Your task to perform on an android device: Search for macbook pro 15 inch on ebay, select the first entry, and add it to the cart. Image 0: 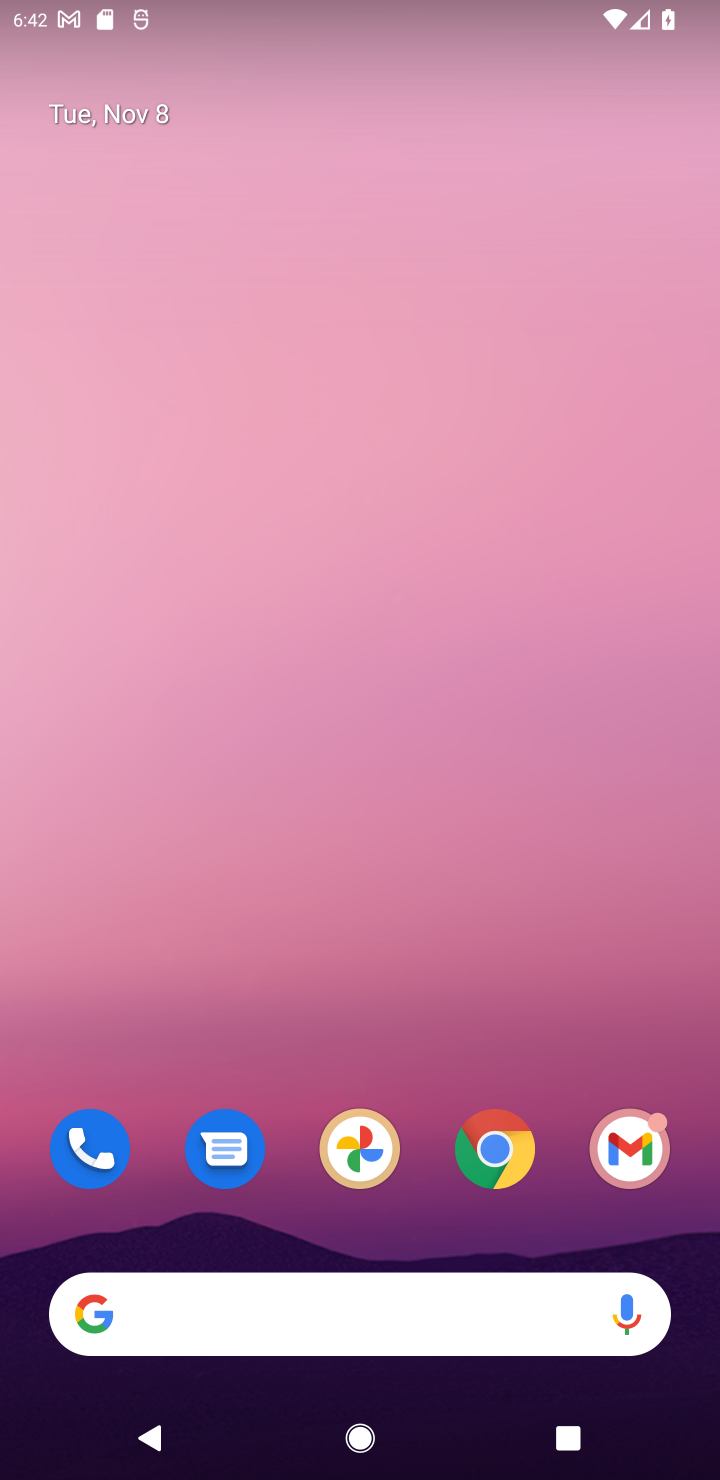
Step 0: click (485, 1144)
Your task to perform on an android device: Search for macbook pro 15 inch on ebay, select the first entry, and add it to the cart. Image 1: 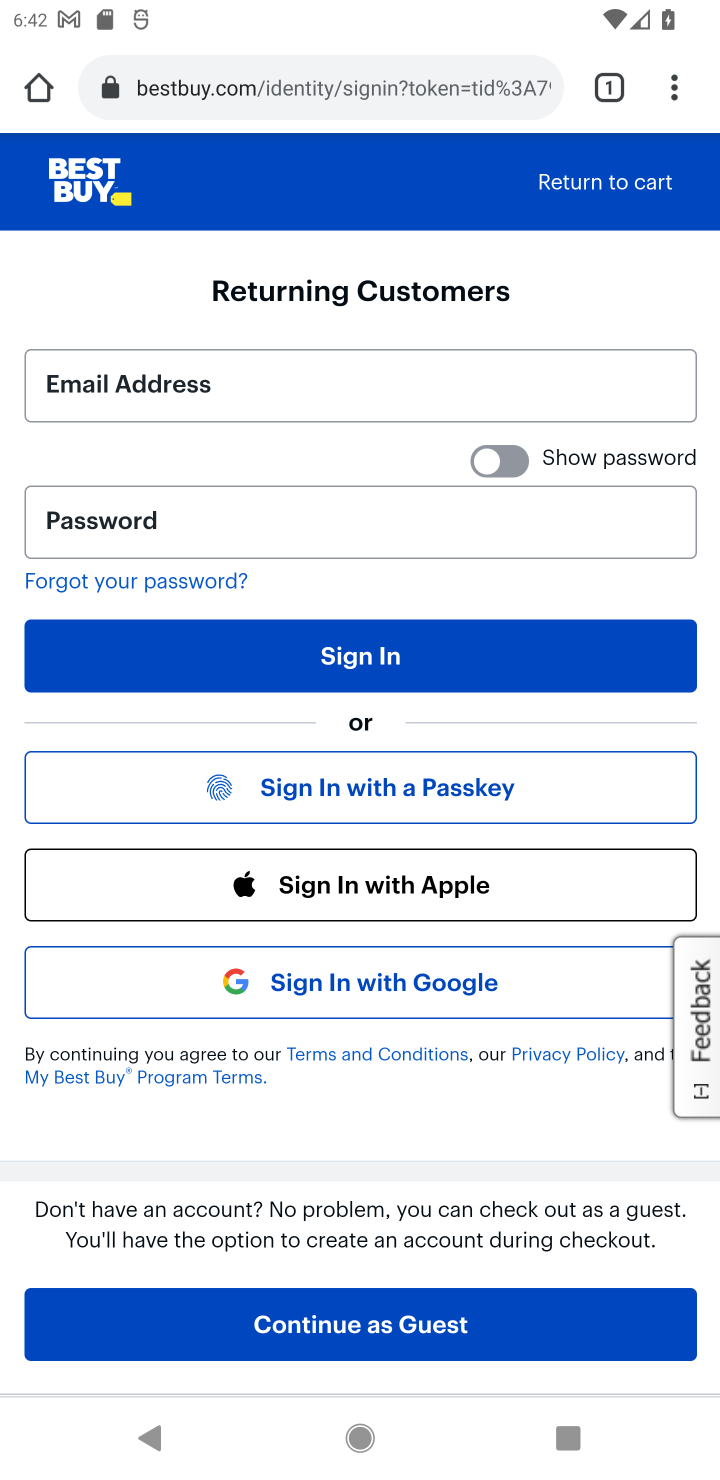
Step 1: click (408, 81)
Your task to perform on an android device: Search for macbook pro 15 inch on ebay, select the first entry, and add it to the cart. Image 2: 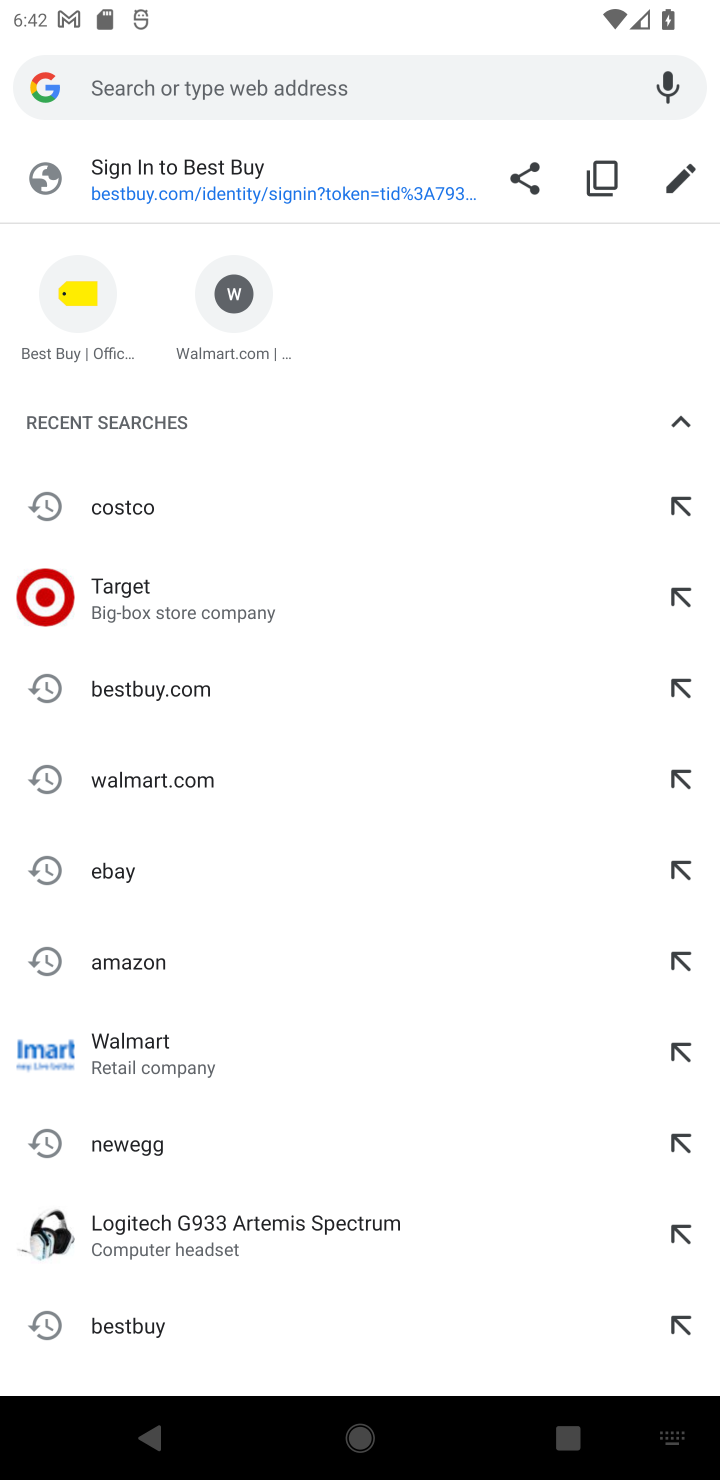
Step 2: type "ebay"
Your task to perform on an android device: Search for macbook pro 15 inch on ebay, select the first entry, and add it to the cart. Image 3: 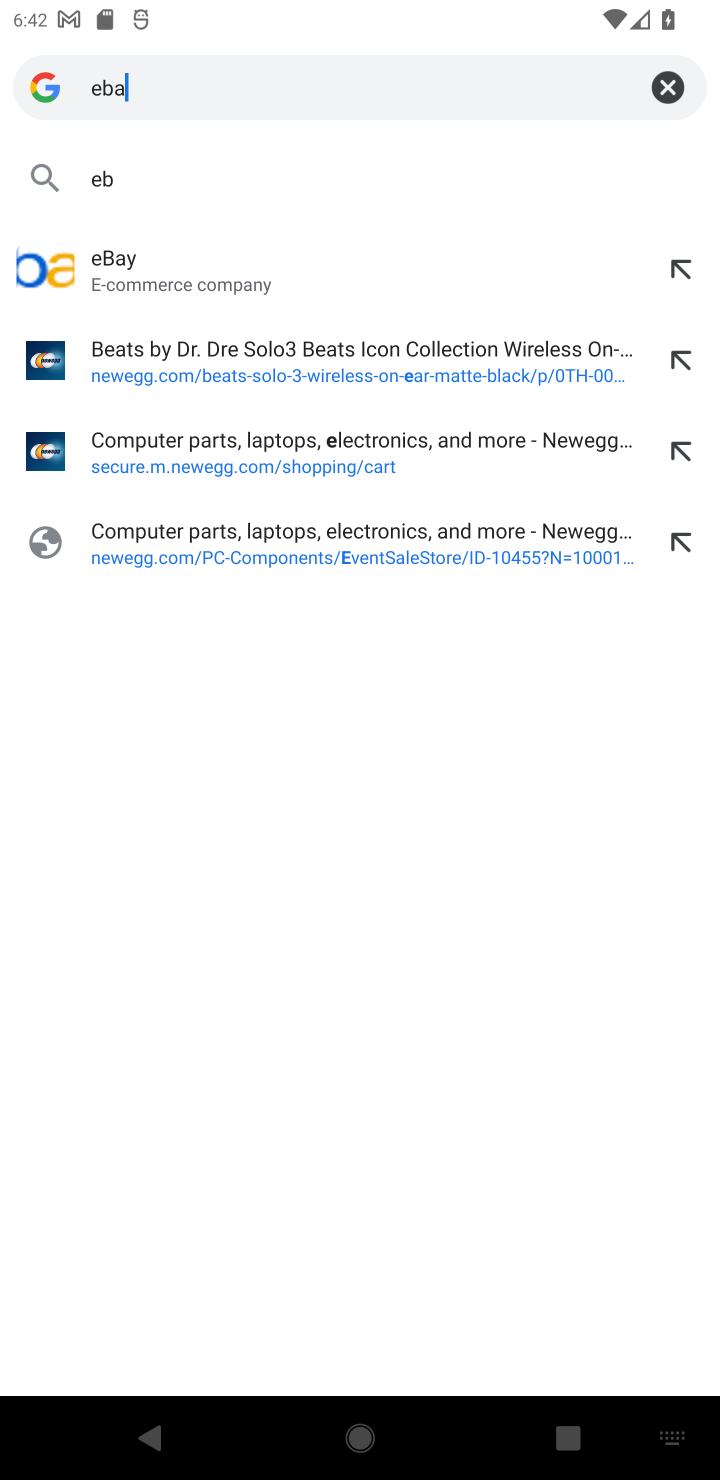
Step 3: press enter
Your task to perform on an android device: Search for macbook pro 15 inch on ebay, select the first entry, and add it to the cart. Image 4: 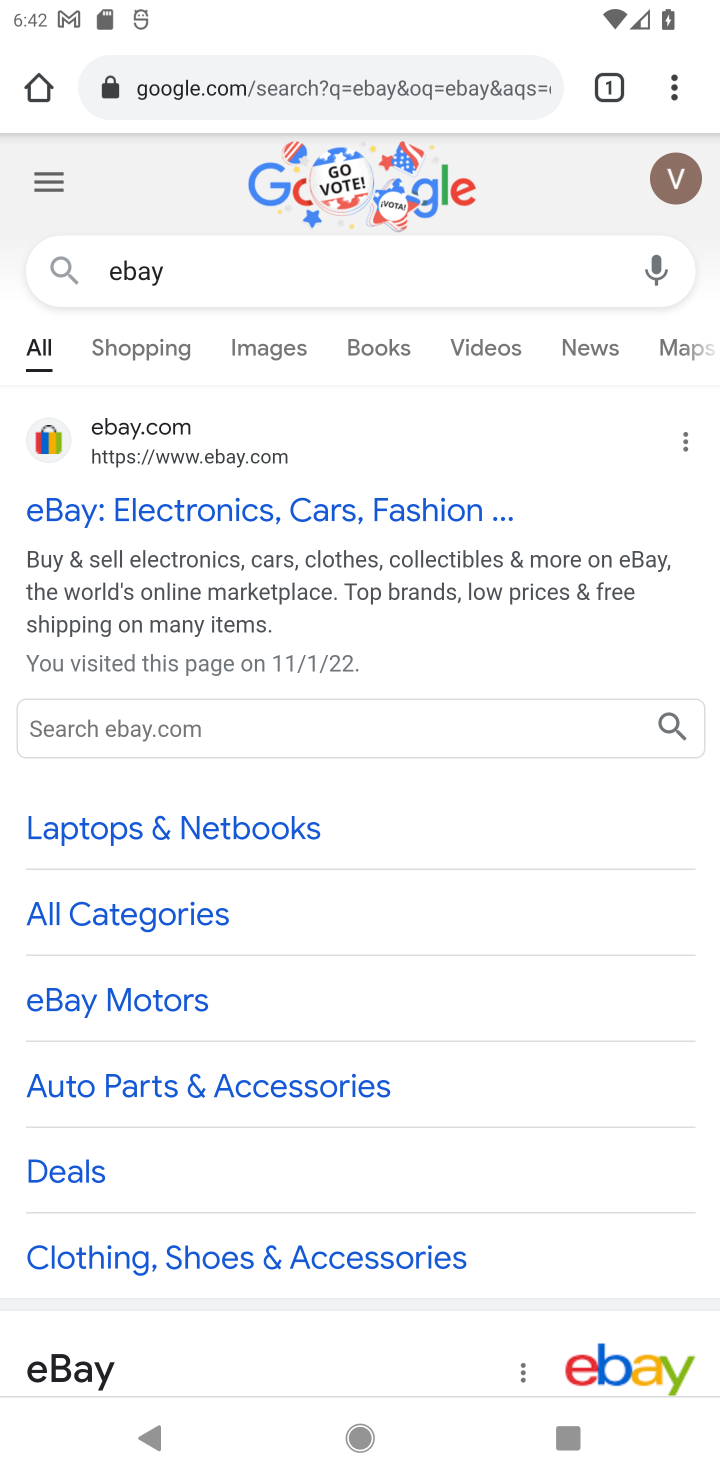
Step 4: click (209, 458)
Your task to perform on an android device: Search for macbook pro 15 inch on ebay, select the first entry, and add it to the cart. Image 5: 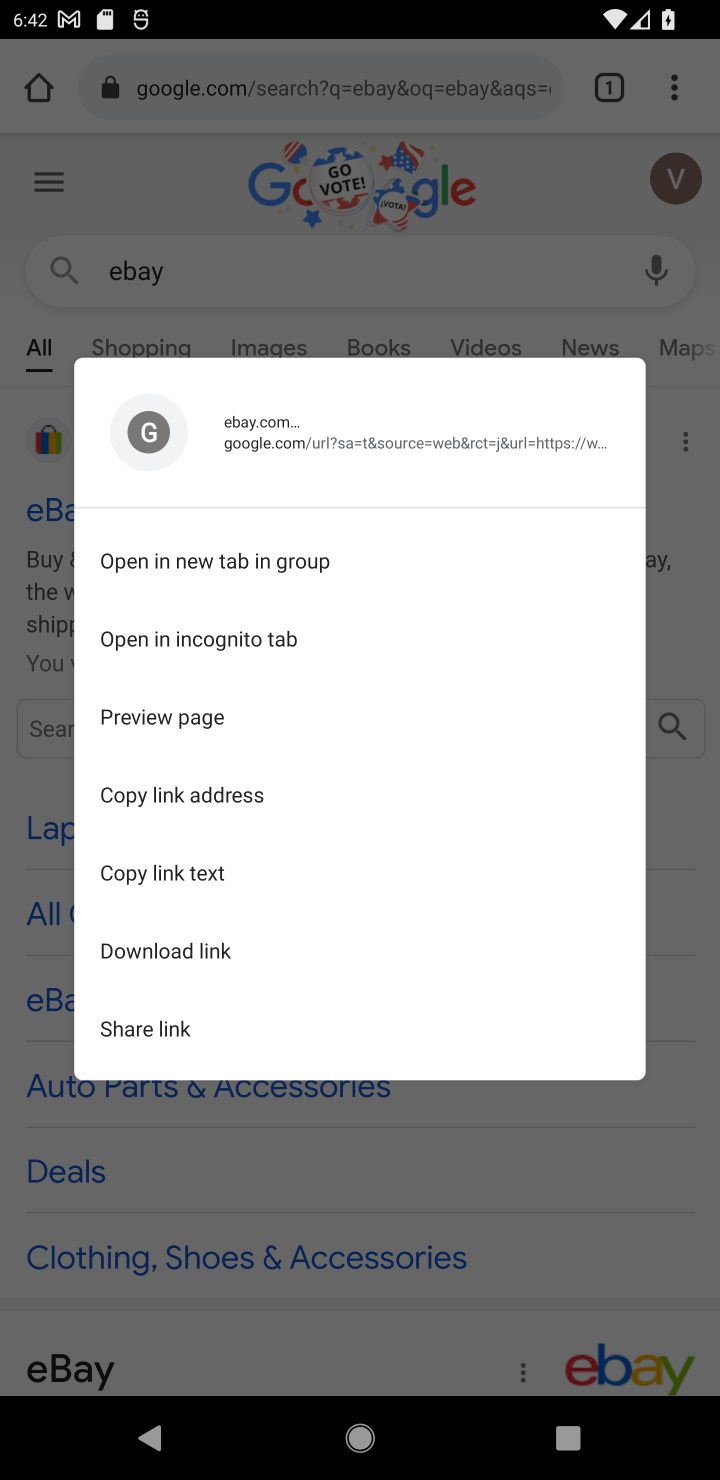
Step 5: click (399, 289)
Your task to perform on an android device: Search for macbook pro 15 inch on ebay, select the first entry, and add it to the cart. Image 6: 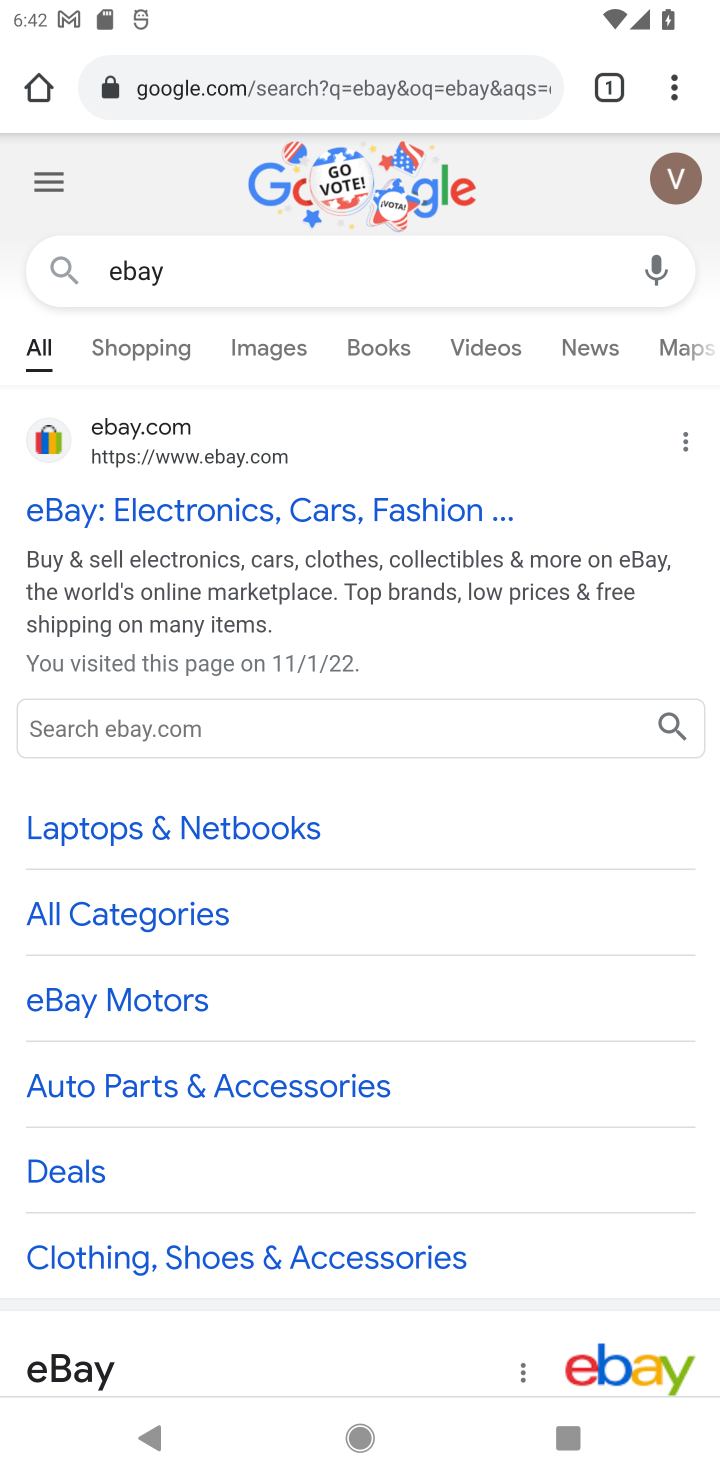
Step 6: click (253, 454)
Your task to perform on an android device: Search for macbook pro 15 inch on ebay, select the first entry, and add it to the cart. Image 7: 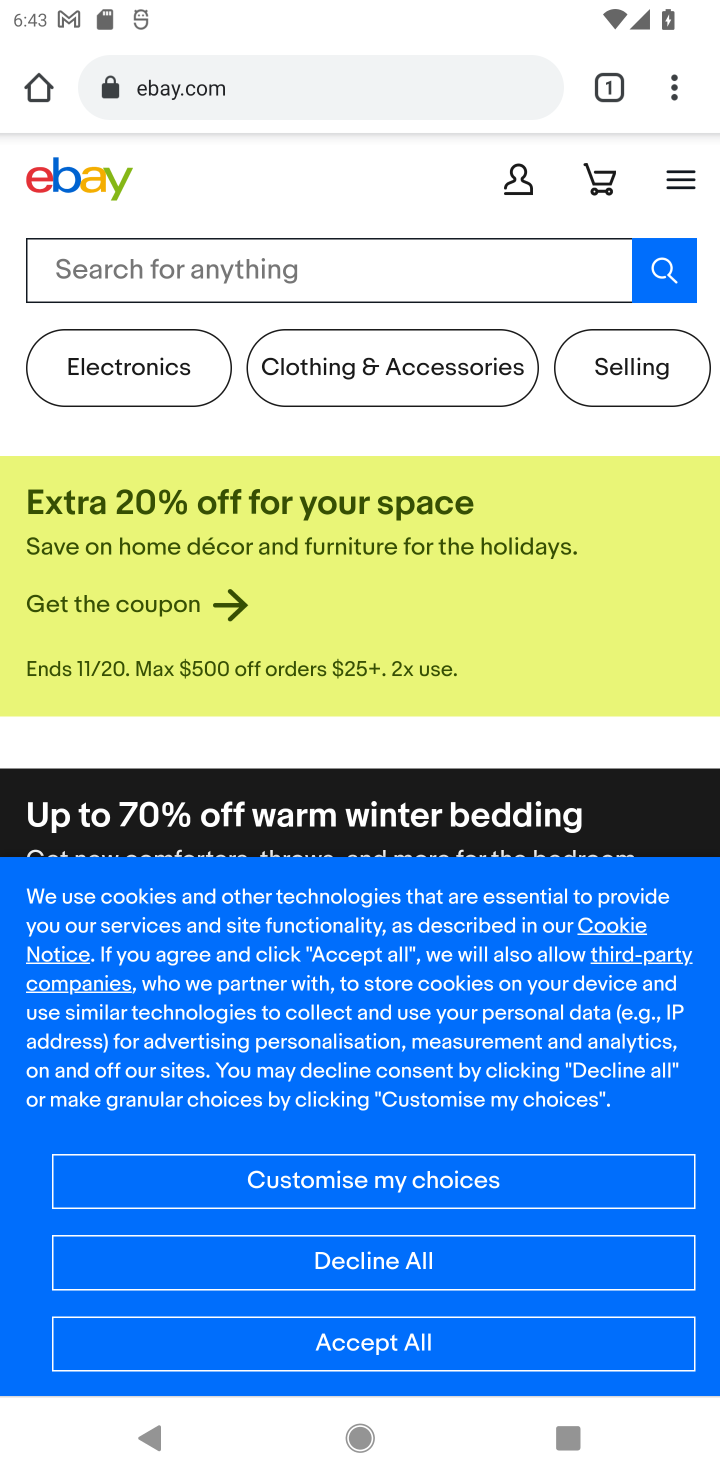
Step 7: click (291, 273)
Your task to perform on an android device: Search for macbook pro 15 inch on ebay, select the first entry, and add it to the cart. Image 8: 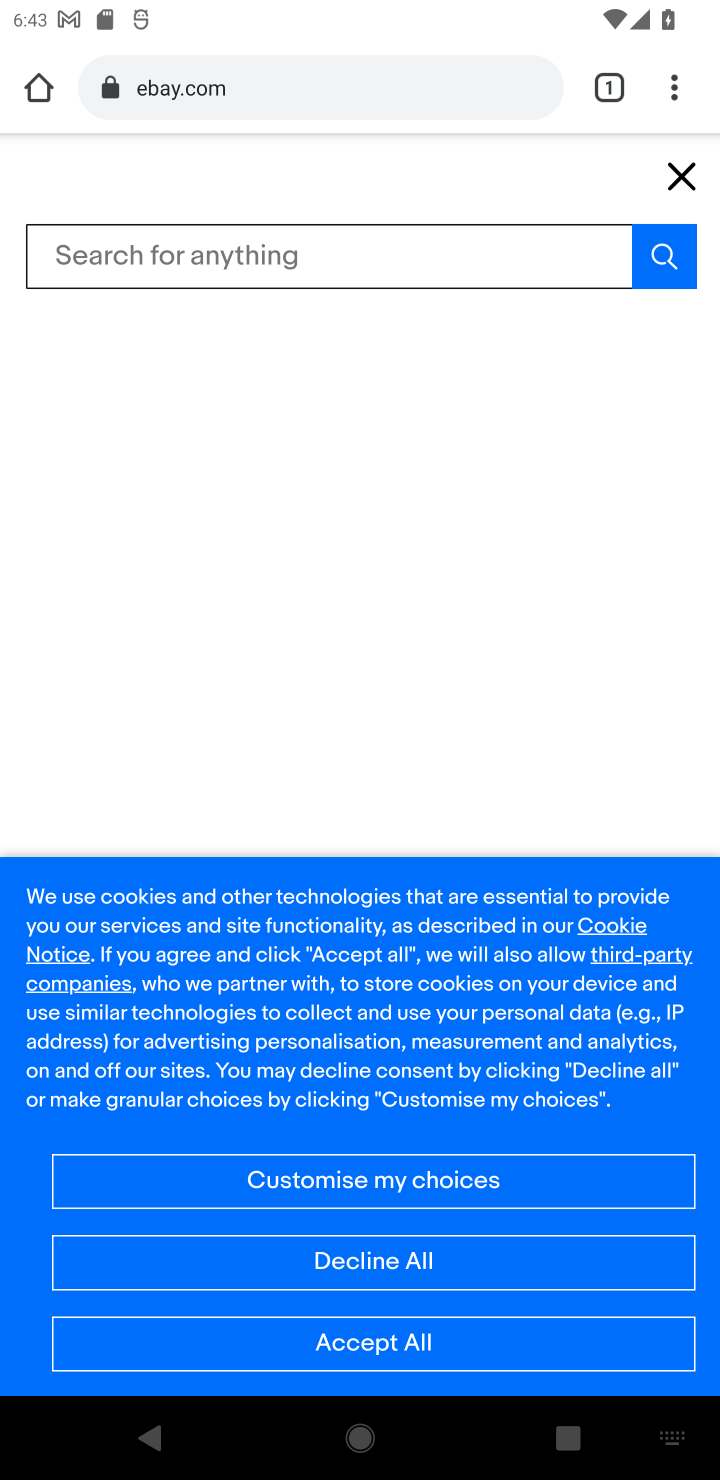
Step 8: type "macbook pro 15 inch"
Your task to perform on an android device: Search for macbook pro 15 inch on ebay, select the first entry, and add it to the cart. Image 9: 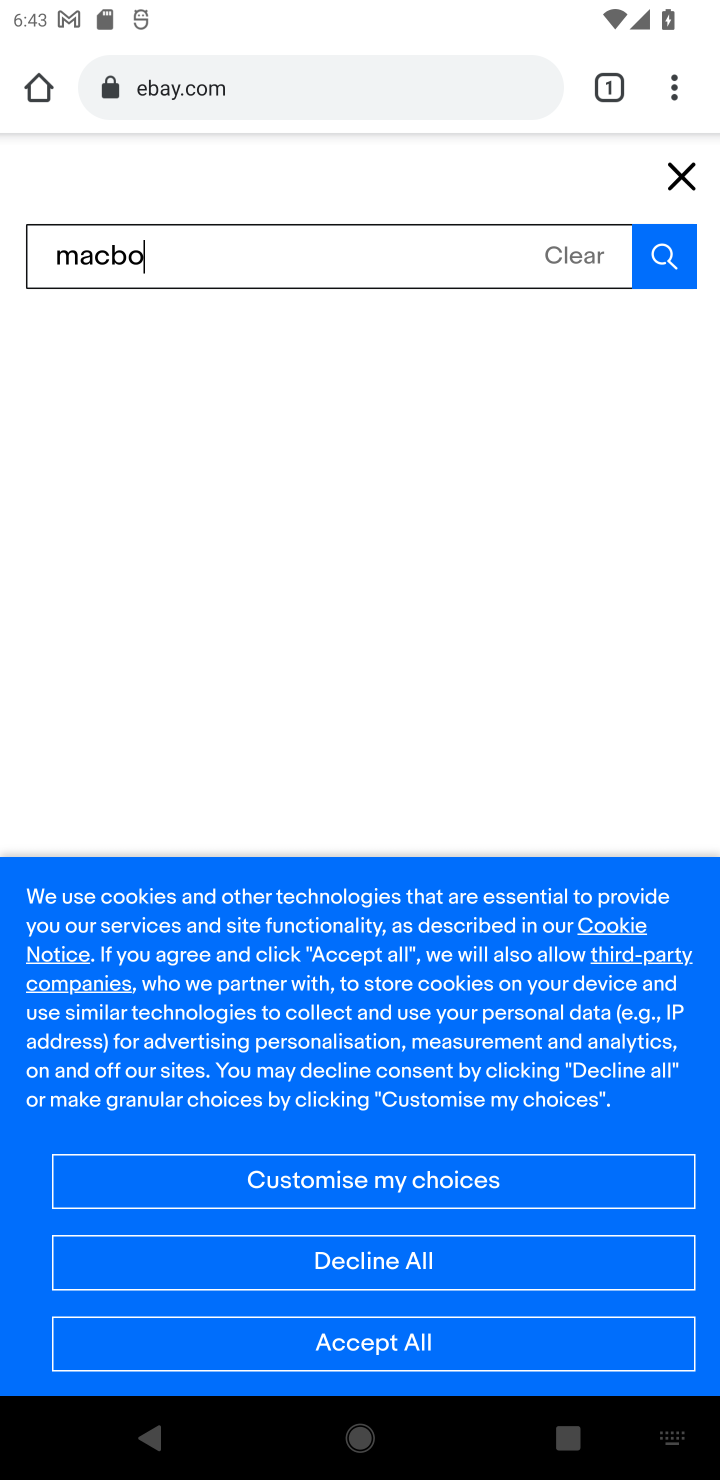
Step 9: press enter
Your task to perform on an android device: Search for macbook pro 15 inch on ebay, select the first entry, and add it to the cart. Image 10: 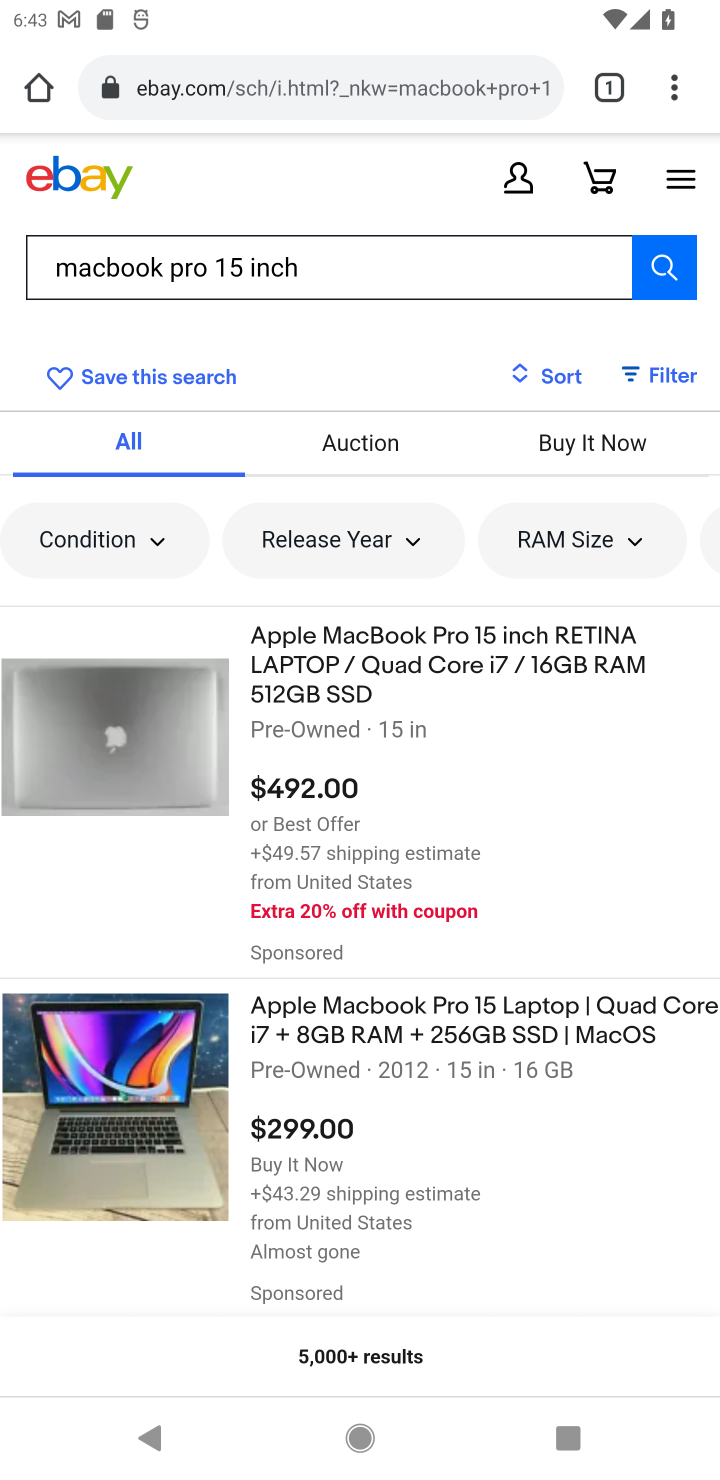
Step 10: click (109, 1101)
Your task to perform on an android device: Search for macbook pro 15 inch on ebay, select the first entry, and add it to the cart. Image 11: 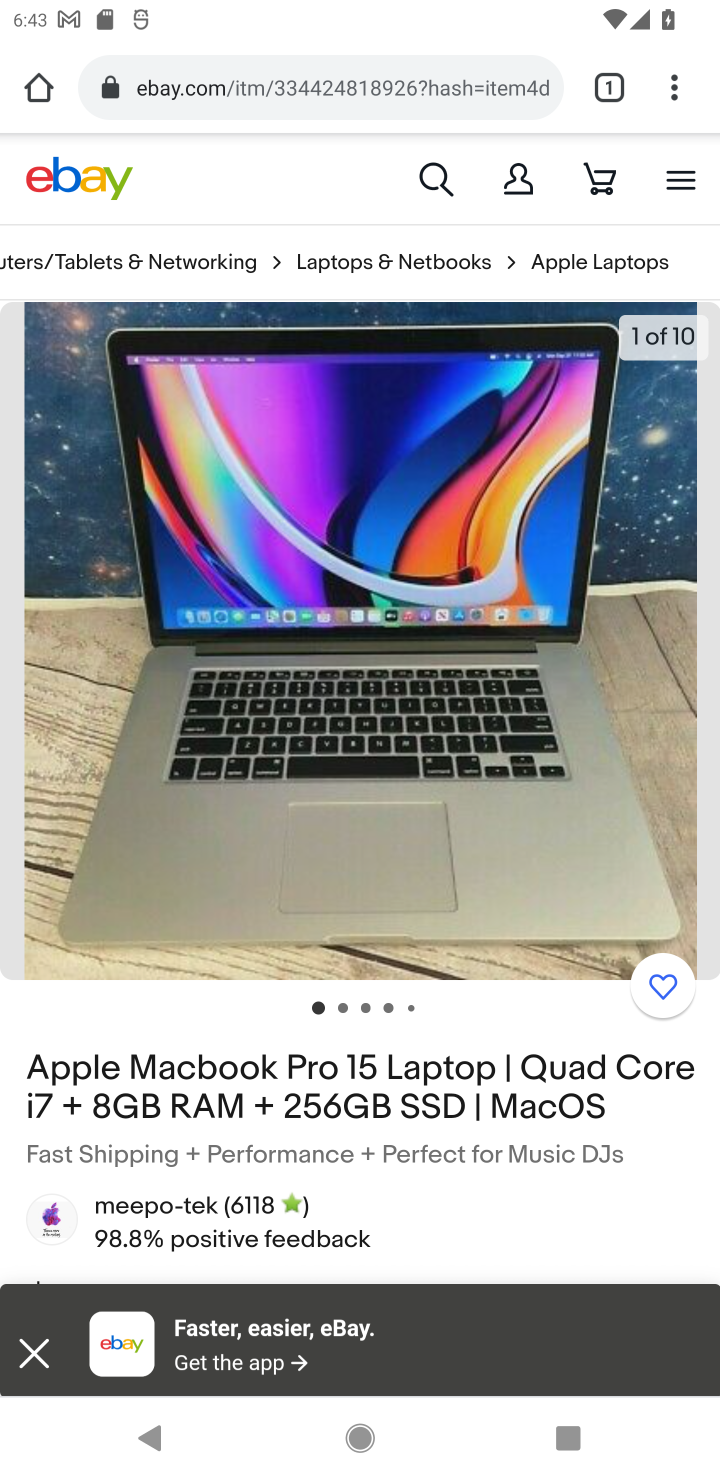
Step 11: drag from (456, 1131) to (318, 438)
Your task to perform on an android device: Search for macbook pro 15 inch on ebay, select the first entry, and add it to the cart. Image 12: 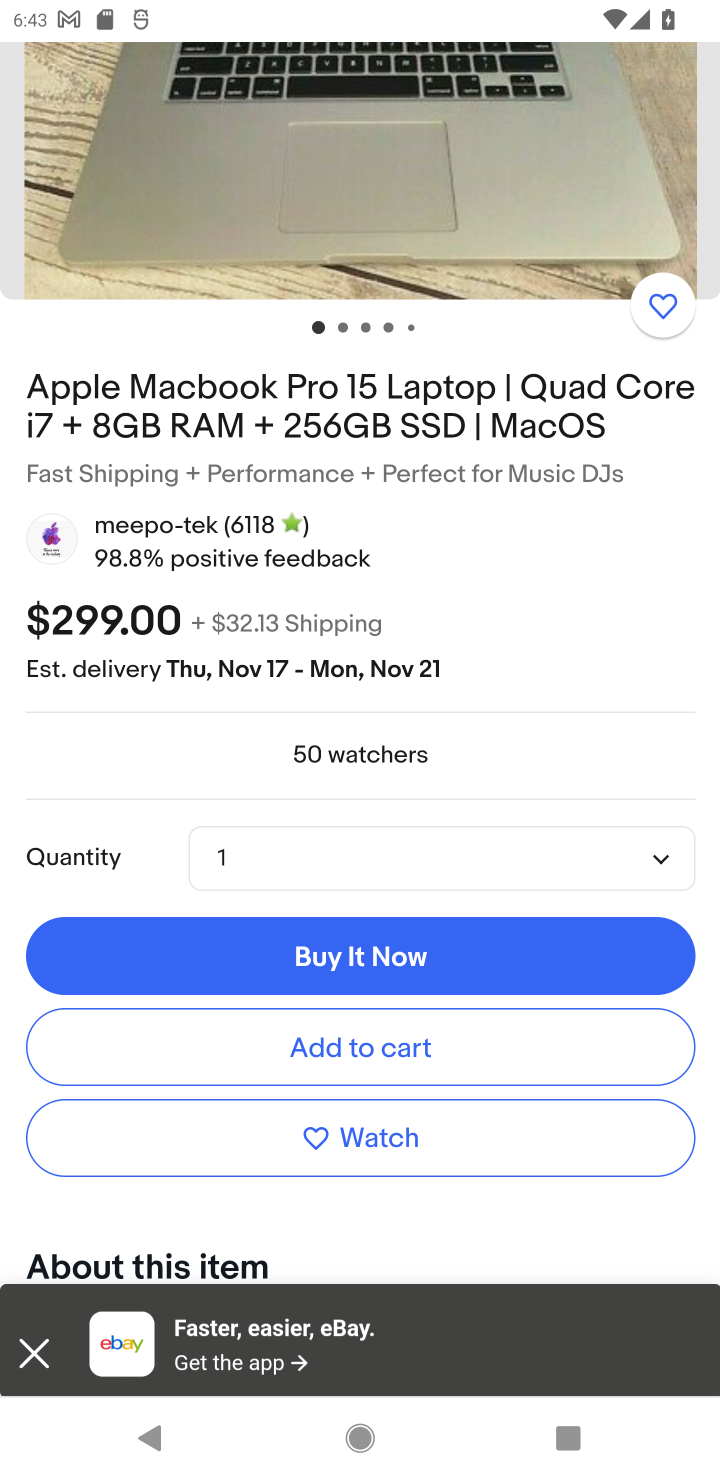
Step 12: click (367, 1051)
Your task to perform on an android device: Search for macbook pro 15 inch on ebay, select the first entry, and add it to the cart. Image 13: 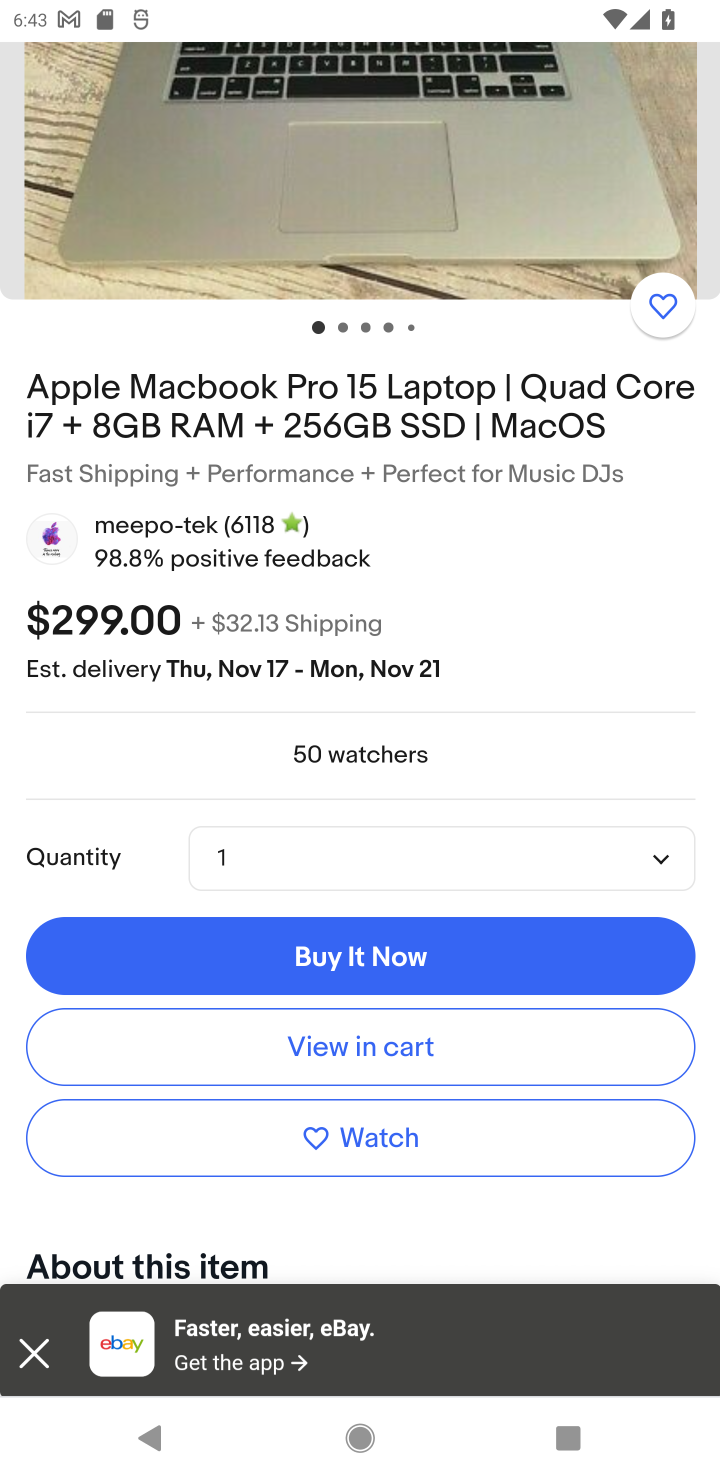
Step 13: click (367, 1051)
Your task to perform on an android device: Search for macbook pro 15 inch on ebay, select the first entry, and add it to the cart. Image 14: 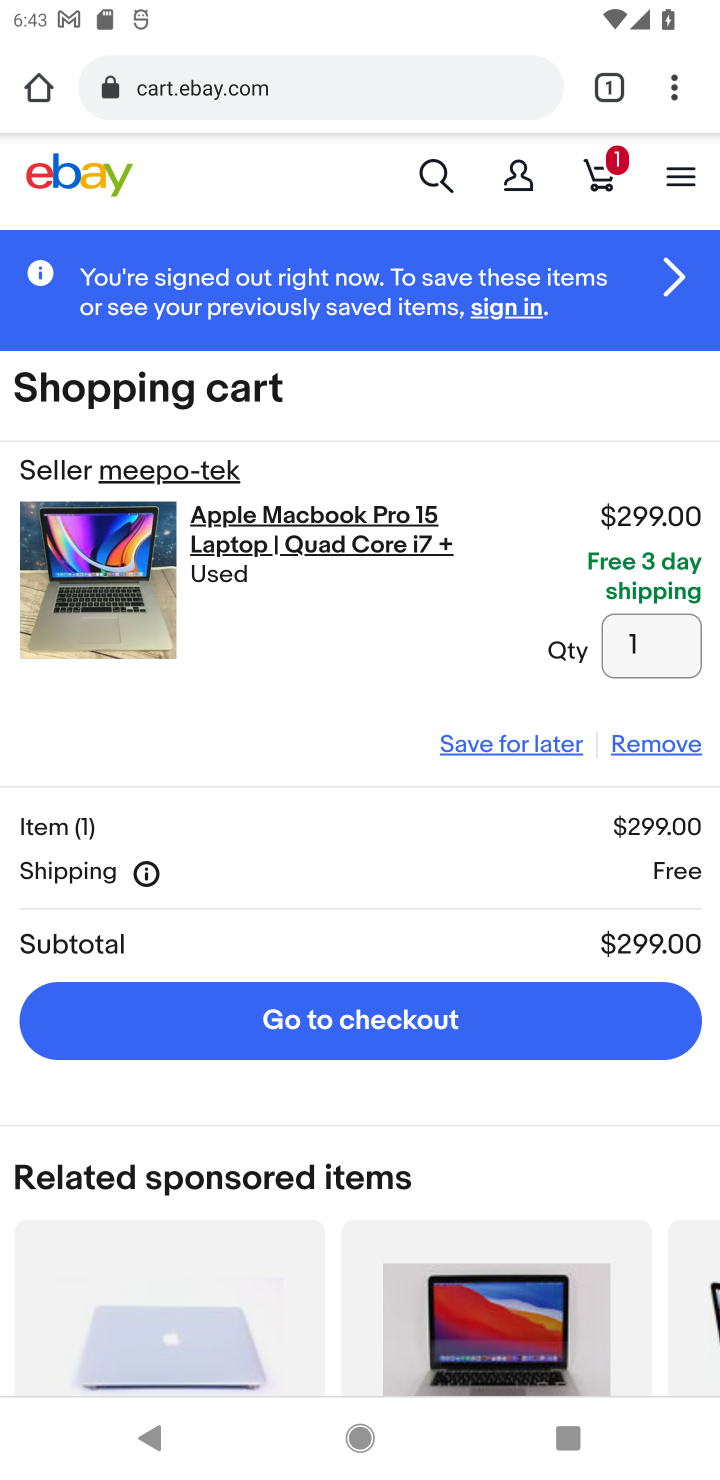
Step 14: task complete